Your task to perform on an android device: turn pop-ups off in chrome Image 0: 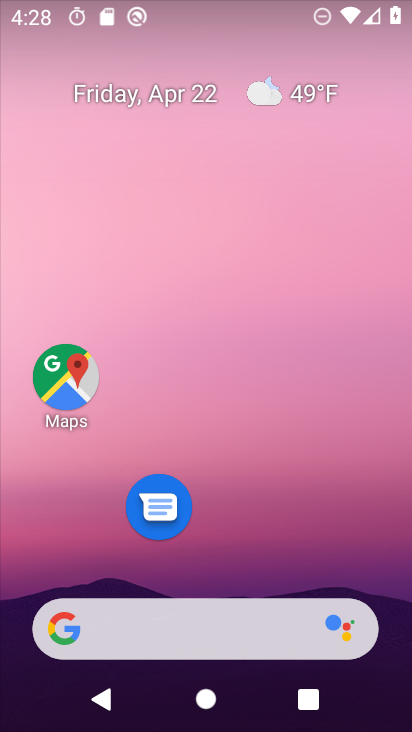
Step 0: drag from (194, 574) to (304, 165)
Your task to perform on an android device: turn pop-ups off in chrome Image 1: 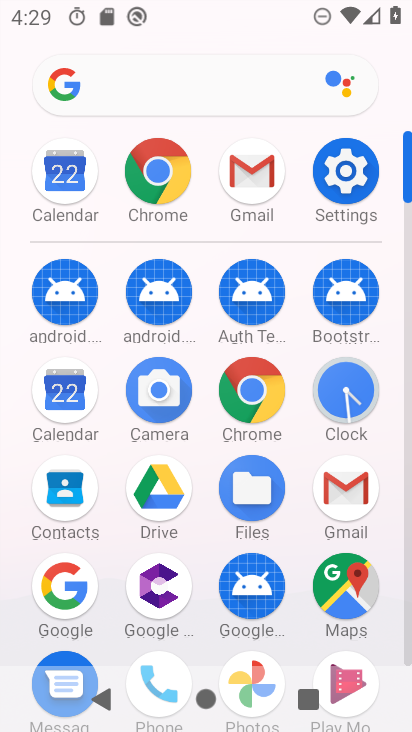
Step 1: click (144, 170)
Your task to perform on an android device: turn pop-ups off in chrome Image 2: 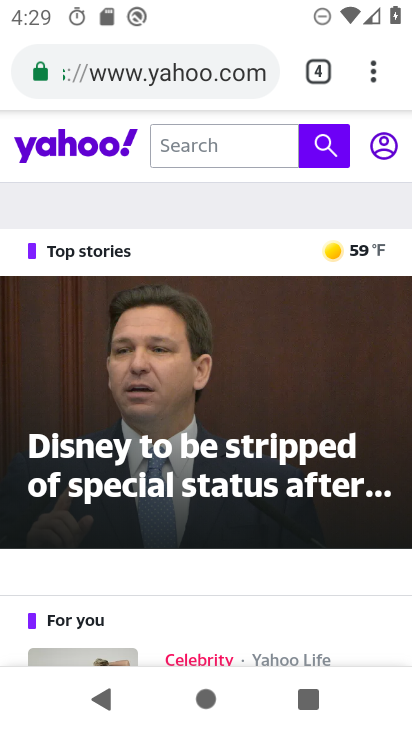
Step 2: drag from (373, 67) to (193, 511)
Your task to perform on an android device: turn pop-ups off in chrome Image 3: 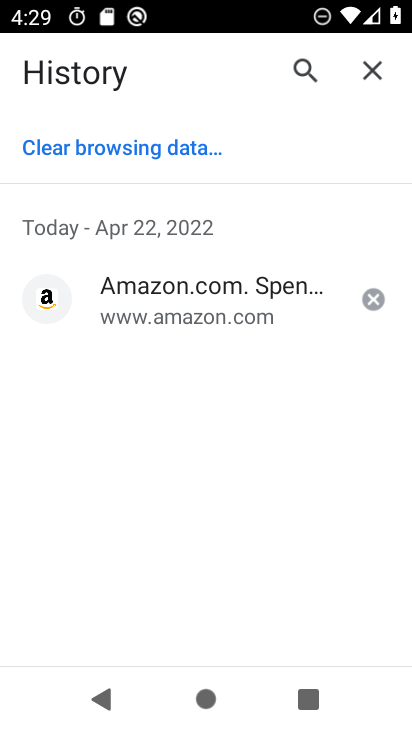
Step 3: click (379, 66)
Your task to perform on an android device: turn pop-ups off in chrome Image 4: 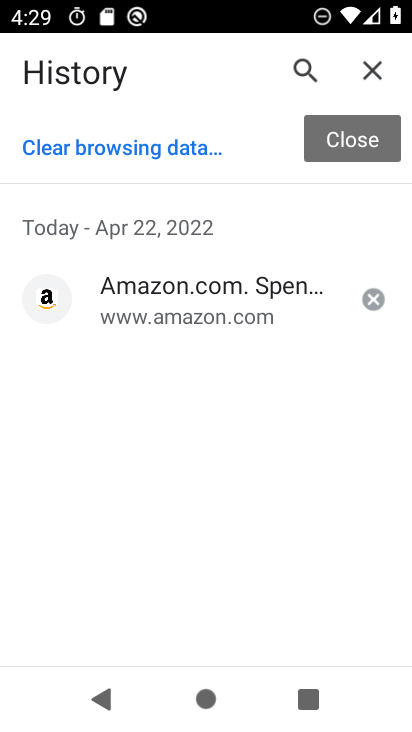
Step 4: click (376, 64)
Your task to perform on an android device: turn pop-ups off in chrome Image 5: 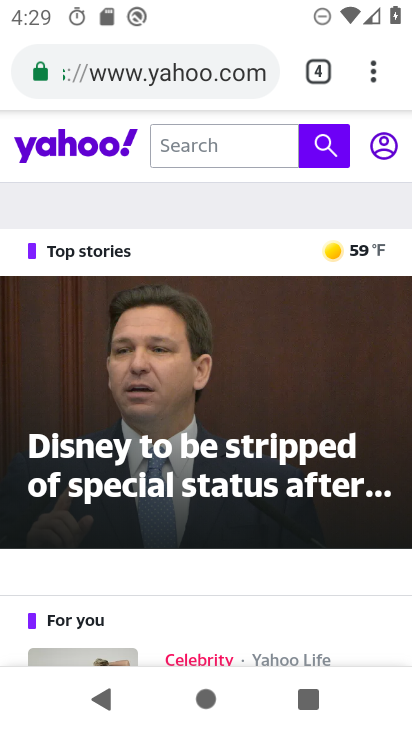
Step 5: drag from (373, 70) to (159, 505)
Your task to perform on an android device: turn pop-ups off in chrome Image 6: 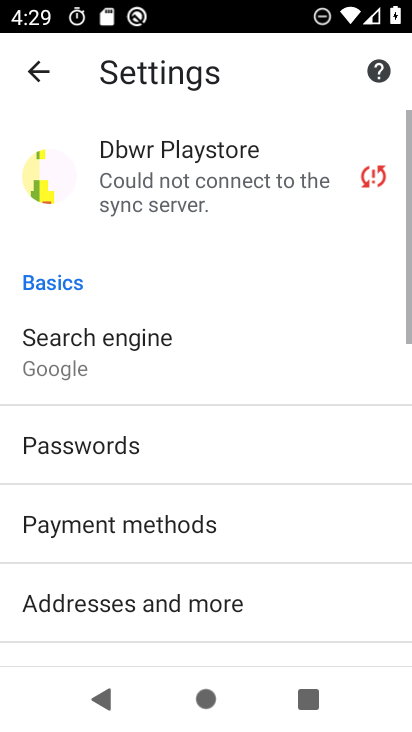
Step 6: drag from (160, 596) to (304, 76)
Your task to perform on an android device: turn pop-ups off in chrome Image 7: 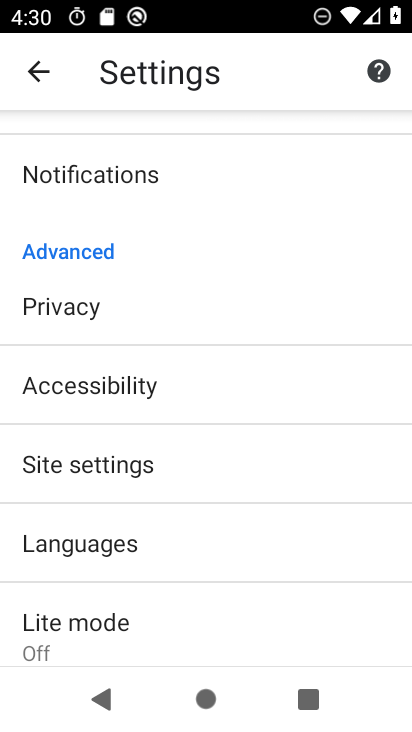
Step 7: click (130, 474)
Your task to perform on an android device: turn pop-ups off in chrome Image 8: 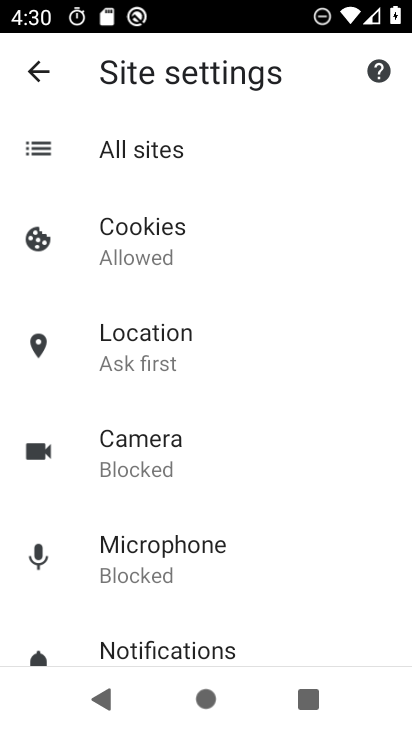
Step 8: drag from (196, 619) to (268, 221)
Your task to perform on an android device: turn pop-ups off in chrome Image 9: 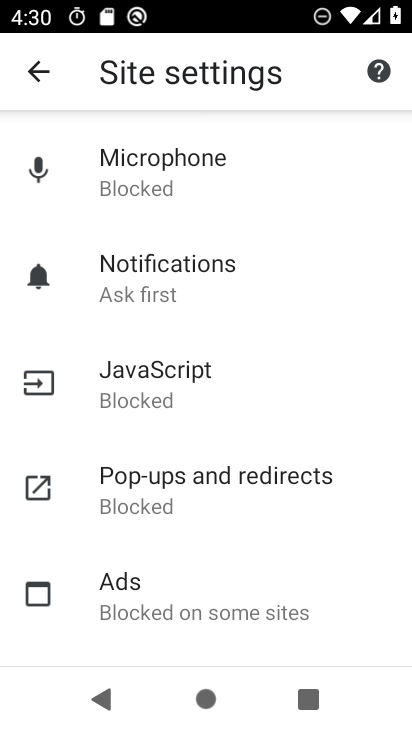
Step 9: click (168, 491)
Your task to perform on an android device: turn pop-ups off in chrome Image 10: 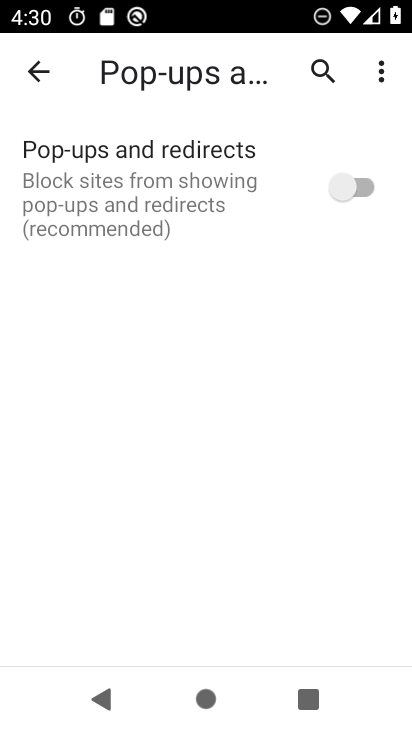
Step 10: task complete